Your task to perform on an android device: add a contact in the contacts app Image 0: 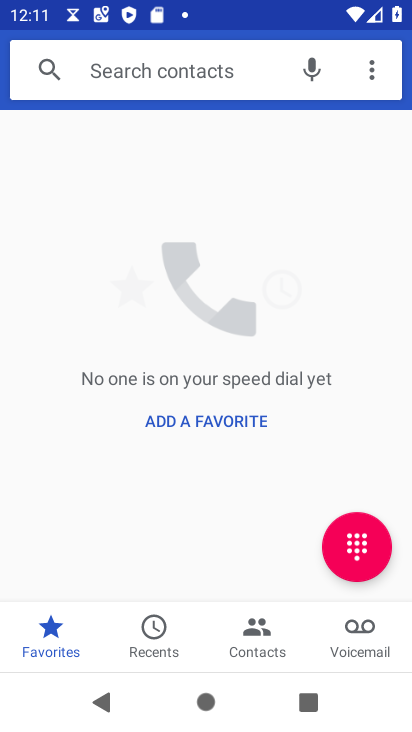
Step 0: press home button
Your task to perform on an android device: add a contact in the contacts app Image 1: 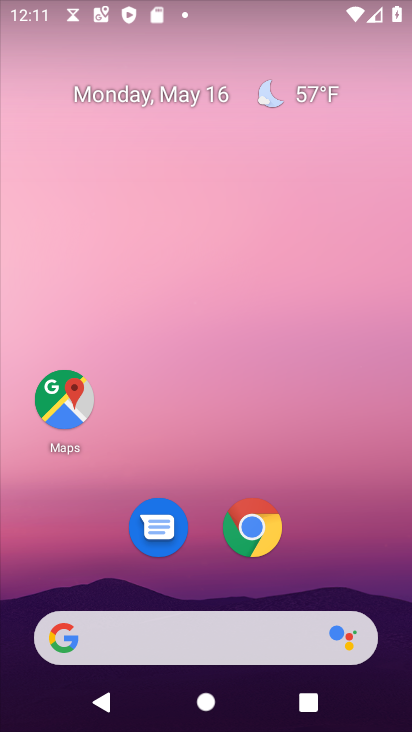
Step 1: drag from (206, 515) to (278, 92)
Your task to perform on an android device: add a contact in the contacts app Image 2: 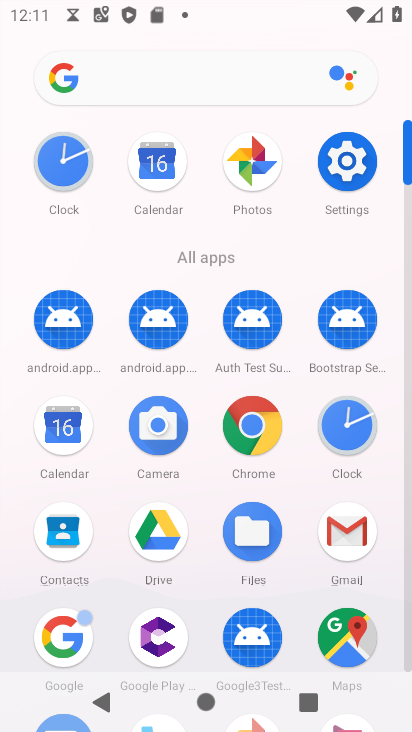
Step 2: click (61, 557)
Your task to perform on an android device: add a contact in the contacts app Image 3: 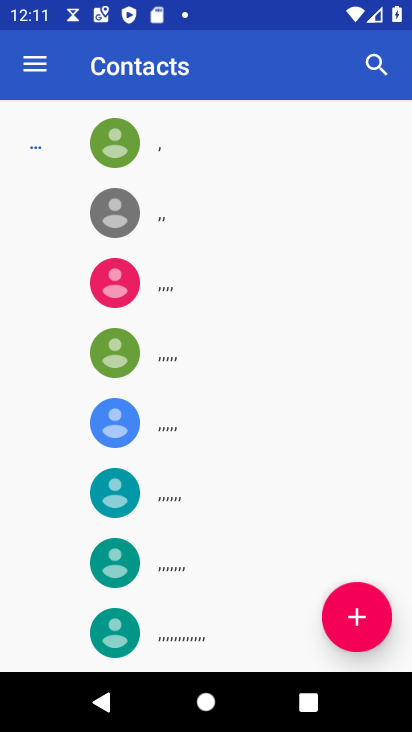
Step 3: click (352, 619)
Your task to perform on an android device: add a contact in the contacts app Image 4: 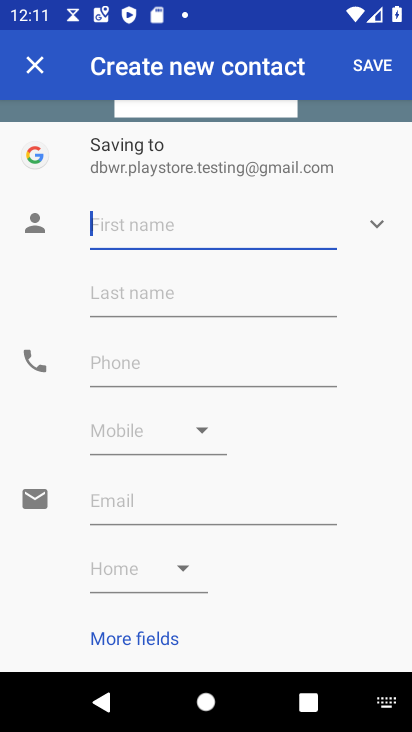
Step 4: type "pams"
Your task to perform on an android device: add a contact in the contacts app Image 5: 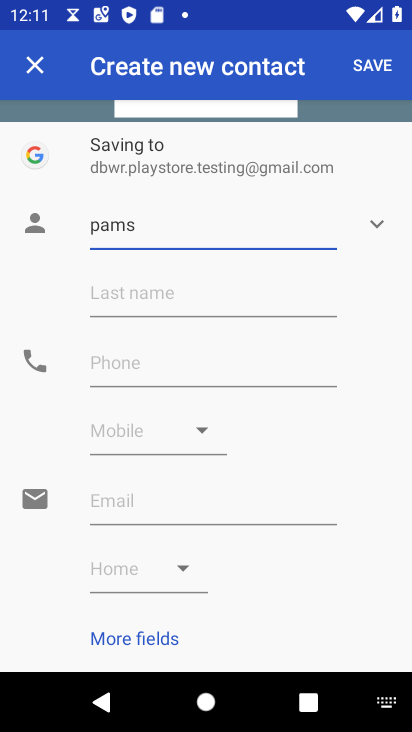
Step 5: click (379, 62)
Your task to perform on an android device: add a contact in the contacts app Image 6: 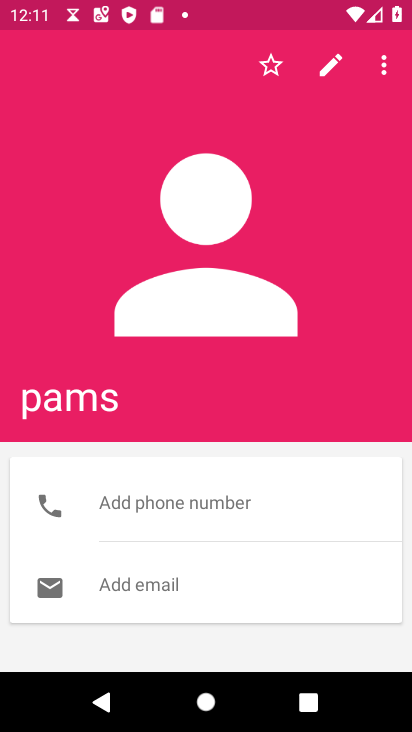
Step 6: task complete